Your task to perform on an android device: When is my next meeting? Image 0: 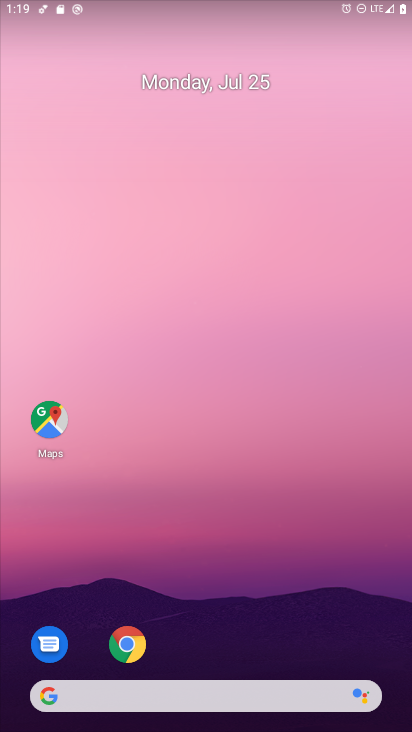
Step 0: drag from (299, 612) to (283, 162)
Your task to perform on an android device: When is my next meeting? Image 1: 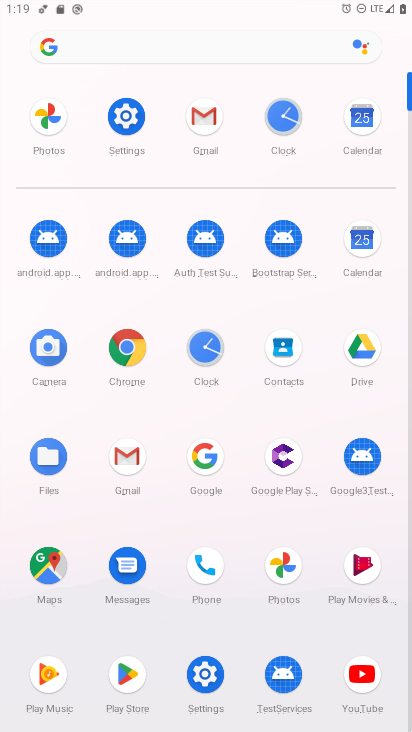
Step 1: click (356, 228)
Your task to perform on an android device: When is my next meeting? Image 2: 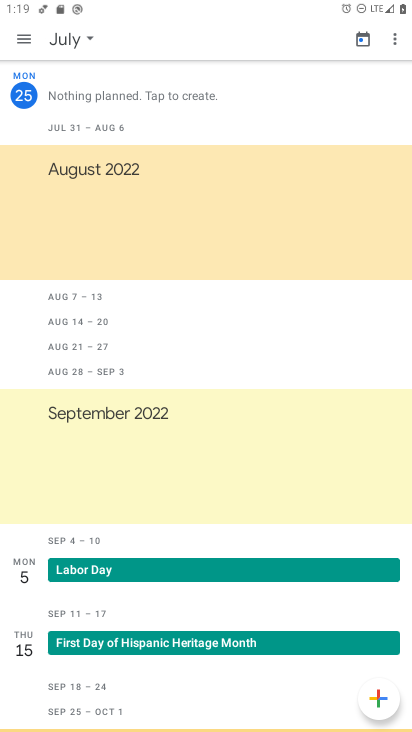
Step 2: click (64, 38)
Your task to perform on an android device: When is my next meeting? Image 3: 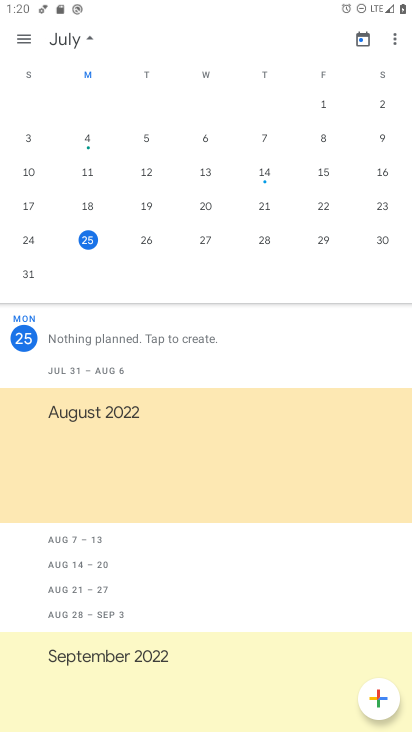
Step 3: click (92, 242)
Your task to perform on an android device: When is my next meeting? Image 4: 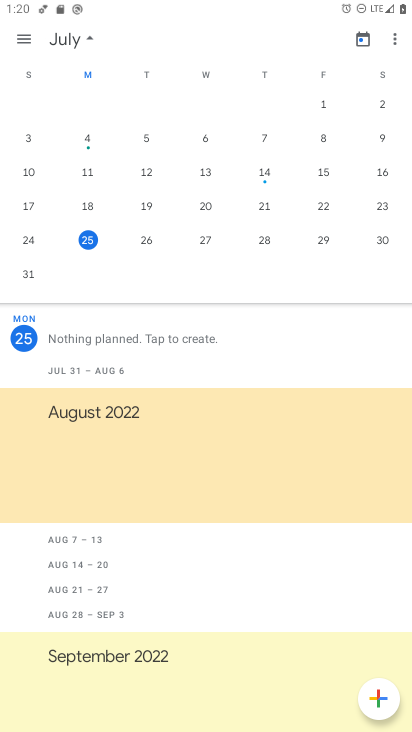
Step 4: task complete